Your task to perform on an android device: Open privacy settings Image 0: 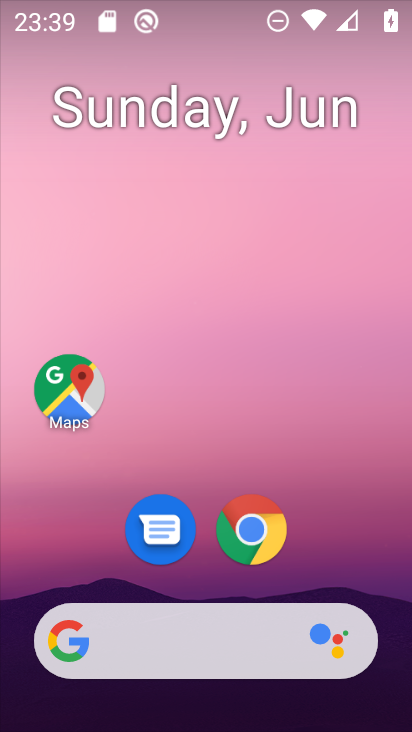
Step 0: drag from (398, 630) to (335, 80)
Your task to perform on an android device: Open privacy settings Image 1: 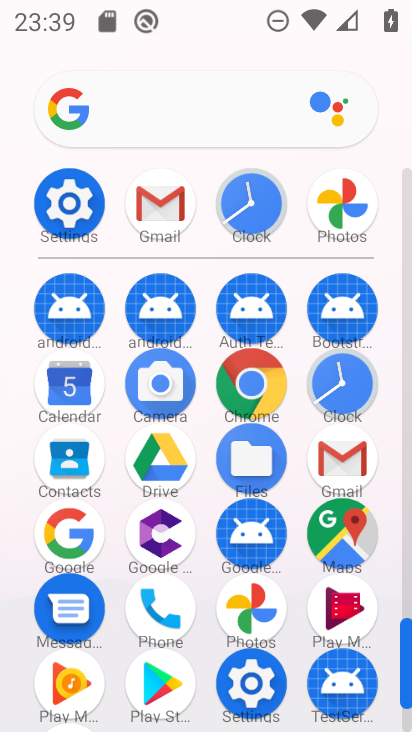
Step 1: click (247, 684)
Your task to perform on an android device: Open privacy settings Image 2: 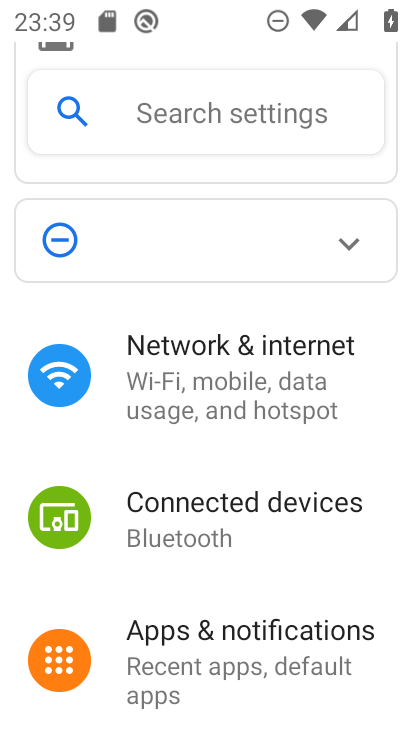
Step 2: drag from (332, 674) to (281, 163)
Your task to perform on an android device: Open privacy settings Image 3: 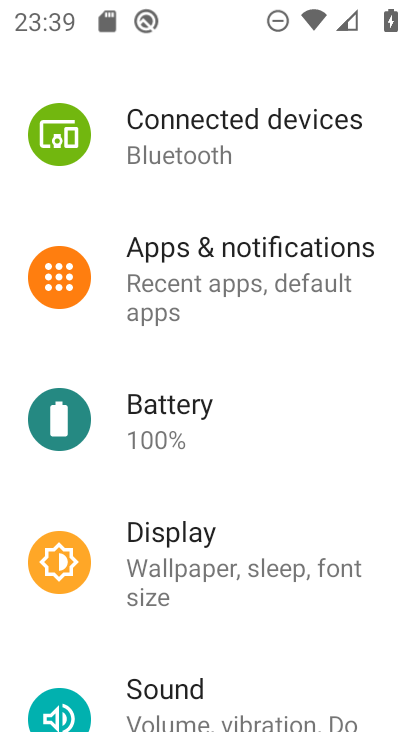
Step 3: drag from (261, 618) to (252, 173)
Your task to perform on an android device: Open privacy settings Image 4: 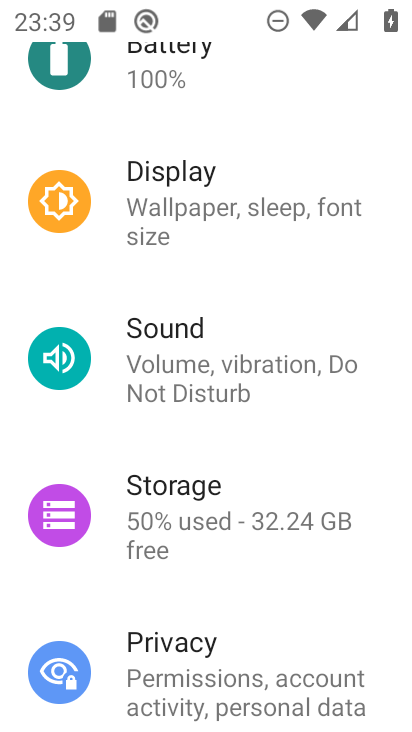
Step 4: drag from (241, 507) to (246, 208)
Your task to perform on an android device: Open privacy settings Image 5: 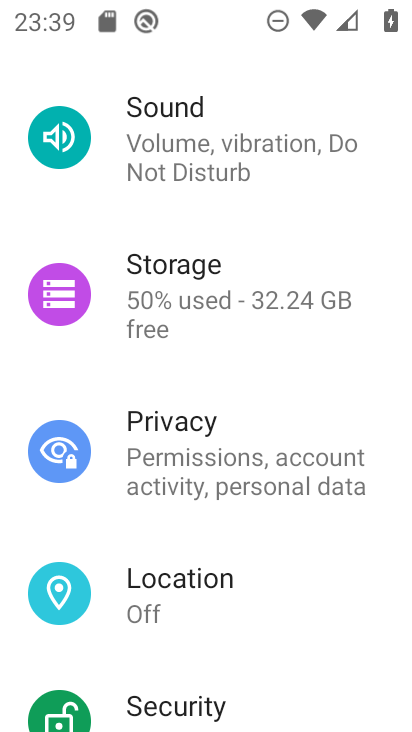
Step 5: click (167, 465)
Your task to perform on an android device: Open privacy settings Image 6: 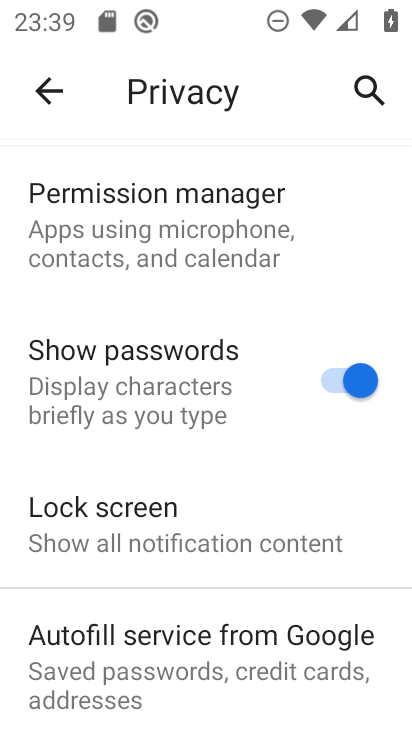
Step 6: drag from (272, 652) to (259, 304)
Your task to perform on an android device: Open privacy settings Image 7: 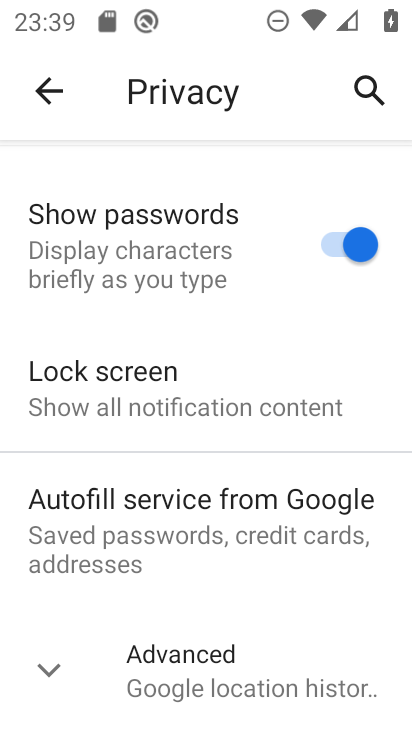
Step 7: click (38, 668)
Your task to perform on an android device: Open privacy settings Image 8: 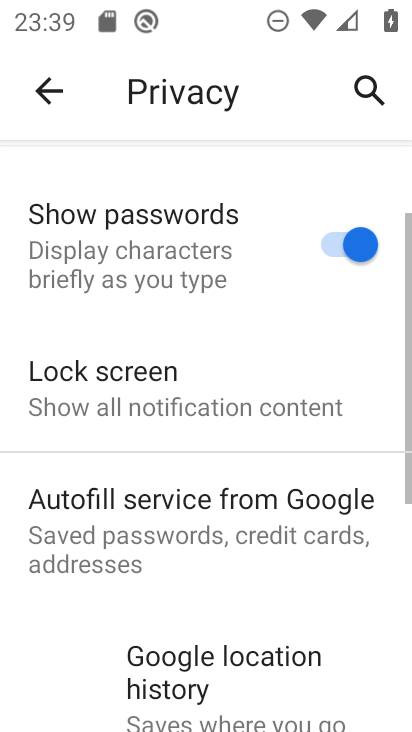
Step 8: task complete